Your task to perform on an android device: turn off sleep mode Image 0: 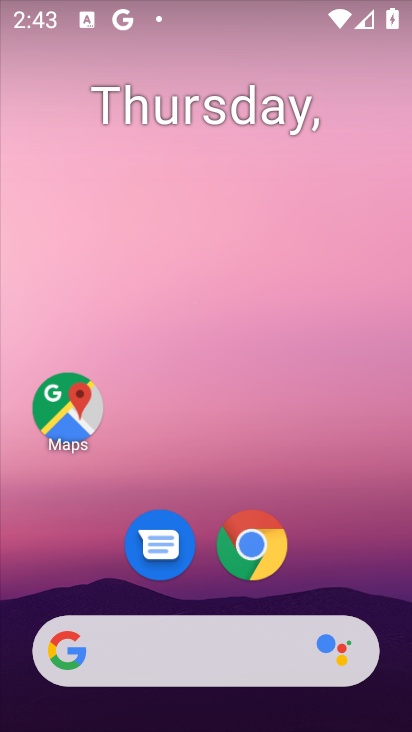
Step 0: drag from (149, 696) to (142, 19)
Your task to perform on an android device: turn off sleep mode Image 1: 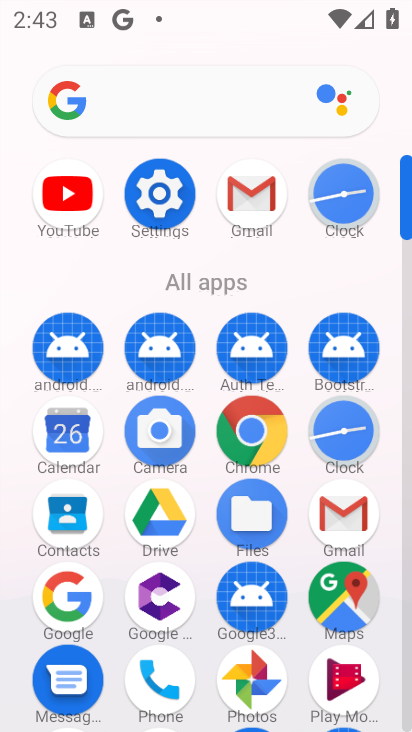
Step 1: click (173, 199)
Your task to perform on an android device: turn off sleep mode Image 2: 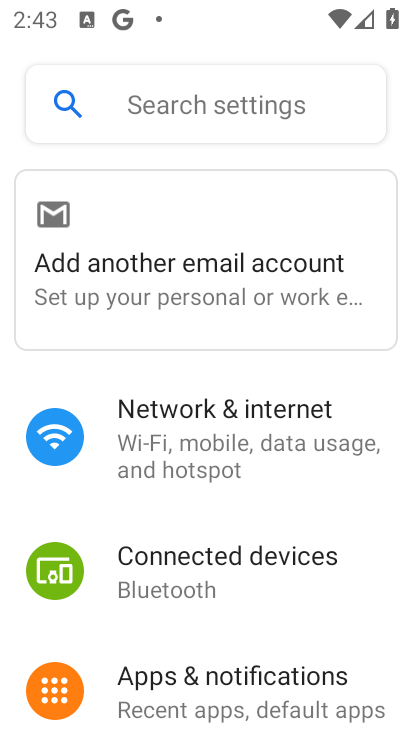
Step 2: drag from (205, 580) to (160, 179)
Your task to perform on an android device: turn off sleep mode Image 3: 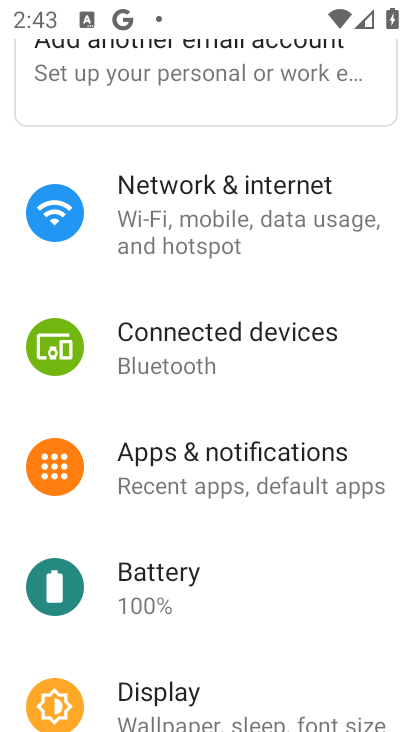
Step 3: drag from (229, 717) to (214, 286)
Your task to perform on an android device: turn off sleep mode Image 4: 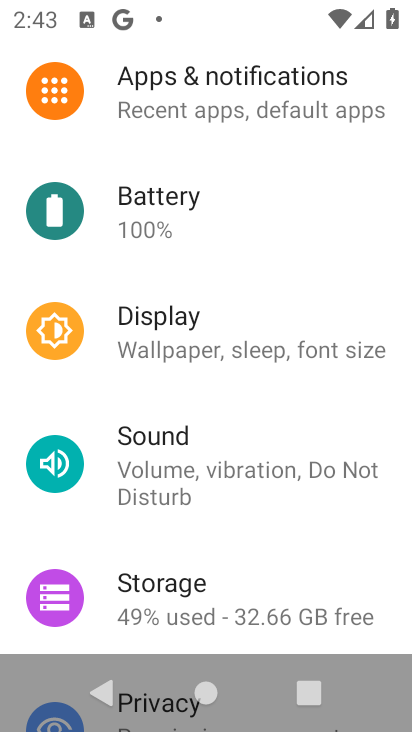
Step 4: click (230, 361)
Your task to perform on an android device: turn off sleep mode Image 5: 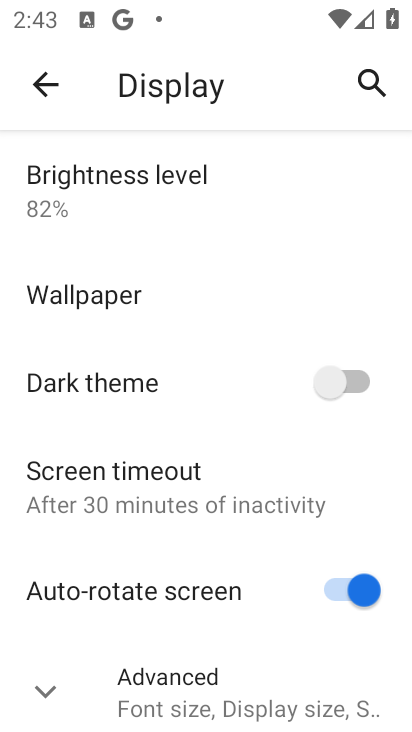
Step 5: drag from (246, 708) to (221, 174)
Your task to perform on an android device: turn off sleep mode Image 6: 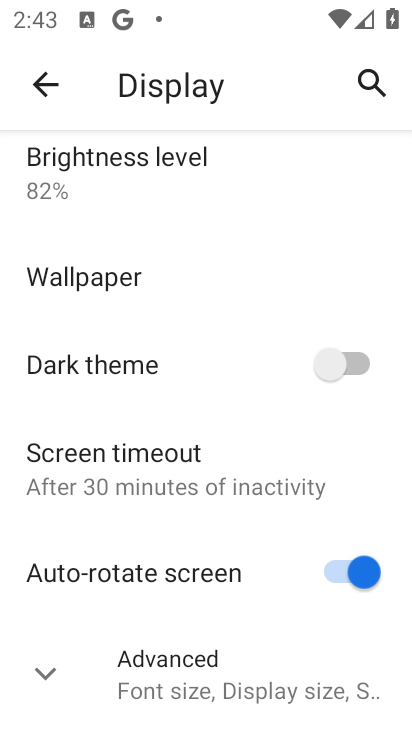
Step 6: click (208, 661)
Your task to perform on an android device: turn off sleep mode Image 7: 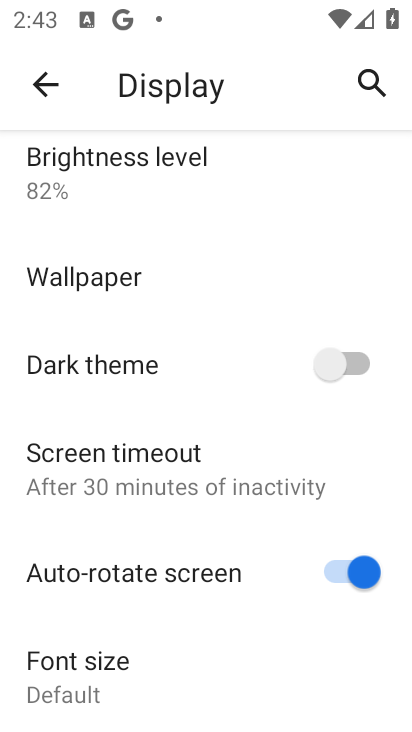
Step 7: task complete